Your task to perform on an android device: Search for pizza restaurants on Maps Image 0: 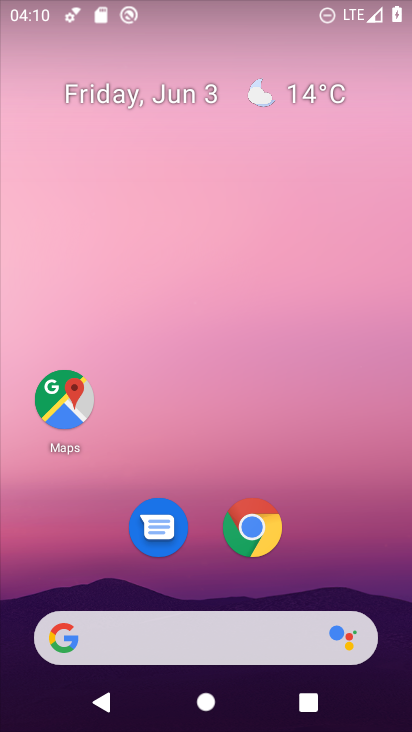
Step 0: click (63, 401)
Your task to perform on an android device: Search for pizza restaurants on Maps Image 1: 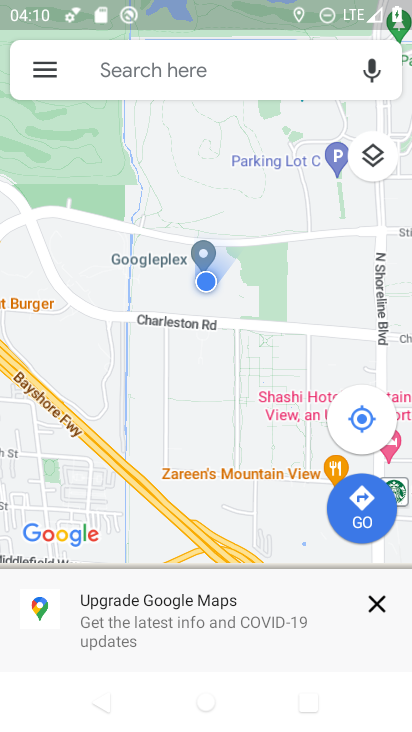
Step 1: click (256, 77)
Your task to perform on an android device: Search for pizza restaurants on Maps Image 2: 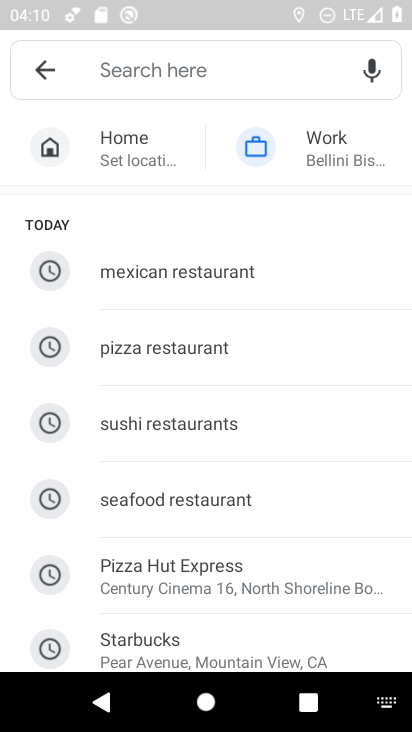
Step 2: type "Pizza restaurants"
Your task to perform on an android device: Search for pizza restaurants on Maps Image 3: 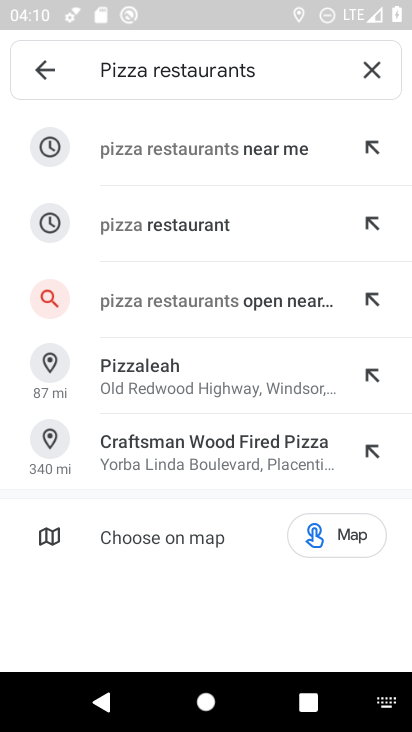
Step 3: click (193, 225)
Your task to perform on an android device: Search for pizza restaurants on Maps Image 4: 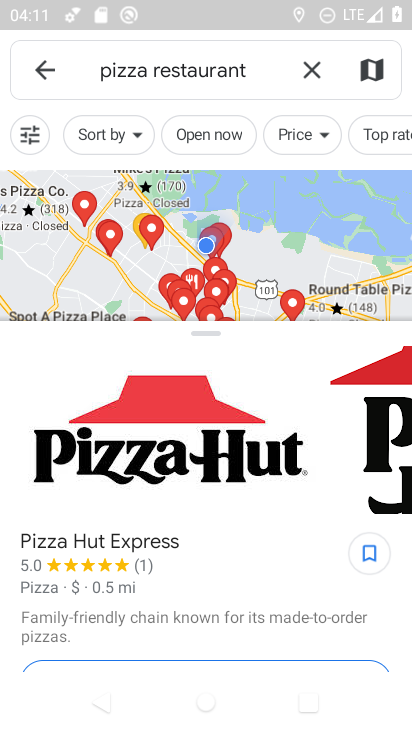
Step 4: task complete